Your task to perform on an android device: manage bookmarks in the chrome app Image 0: 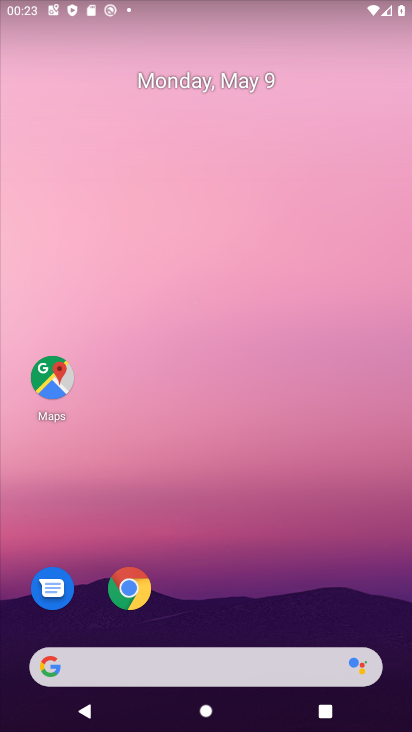
Step 0: press home button
Your task to perform on an android device: manage bookmarks in the chrome app Image 1: 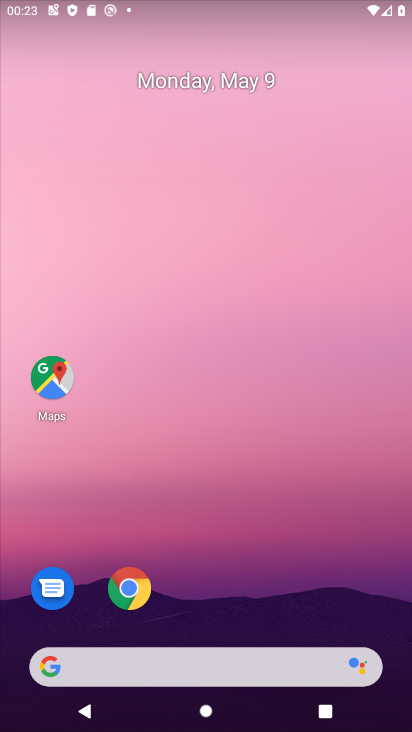
Step 1: click (138, 606)
Your task to perform on an android device: manage bookmarks in the chrome app Image 2: 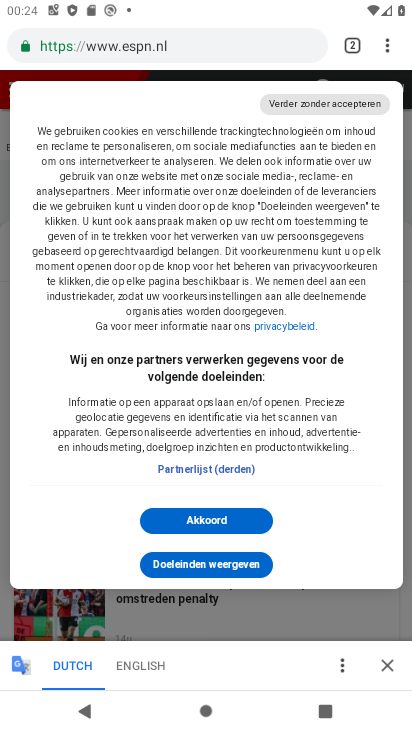
Step 2: click (378, 47)
Your task to perform on an android device: manage bookmarks in the chrome app Image 3: 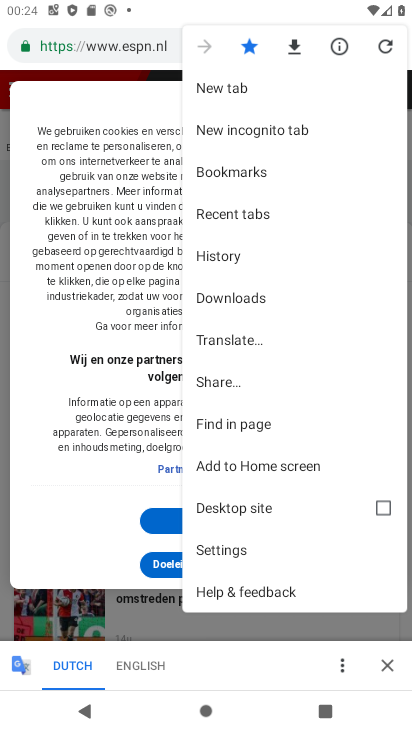
Step 3: click (231, 165)
Your task to perform on an android device: manage bookmarks in the chrome app Image 4: 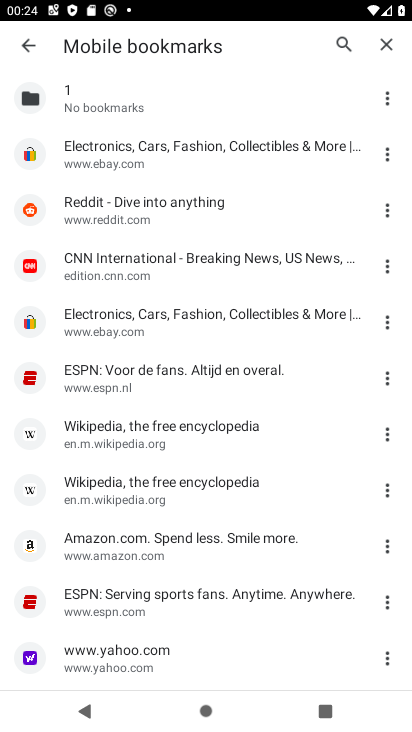
Step 4: click (385, 148)
Your task to perform on an android device: manage bookmarks in the chrome app Image 5: 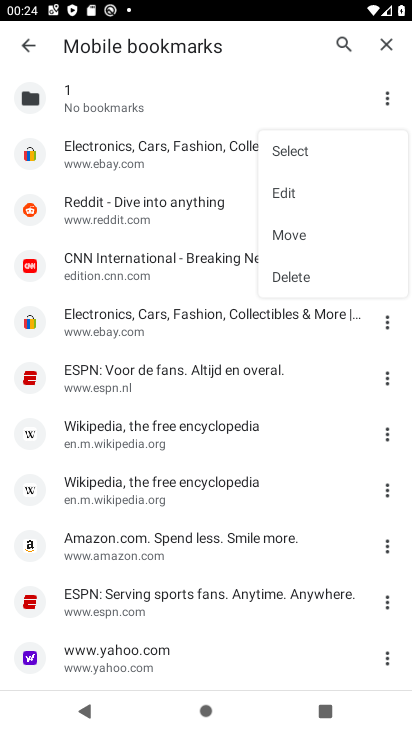
Step 5: click (282, 191)
Your task to perform on an android device: manage bookmarks in the chrome app Image 6: 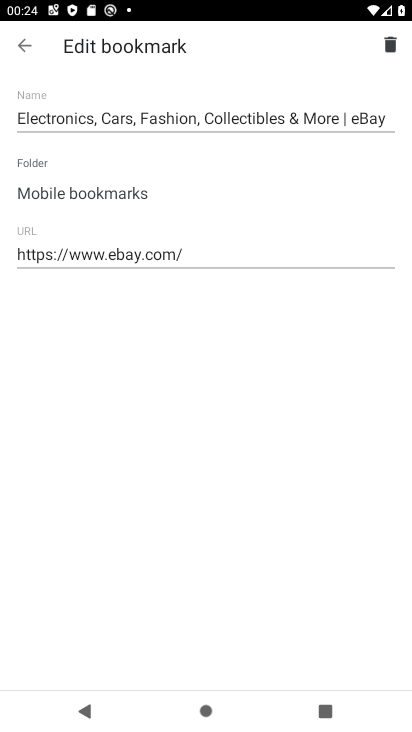
Step 6: task complete